Your task to perform on an android device: Open Chrome and go to settings Image 0: 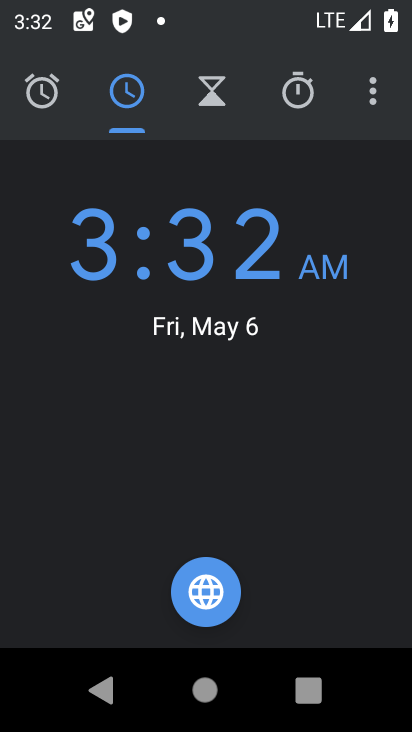
Step 0: press home button
Your task to perform on an android device: Open Chrome and go to settings Image 1: 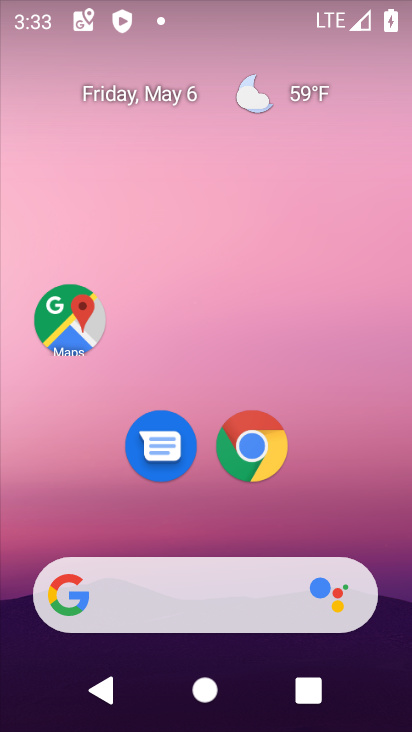
Step 1: click (266, 445)
Your task to perform on an android device: Open Chrome and go to settings Image 2: 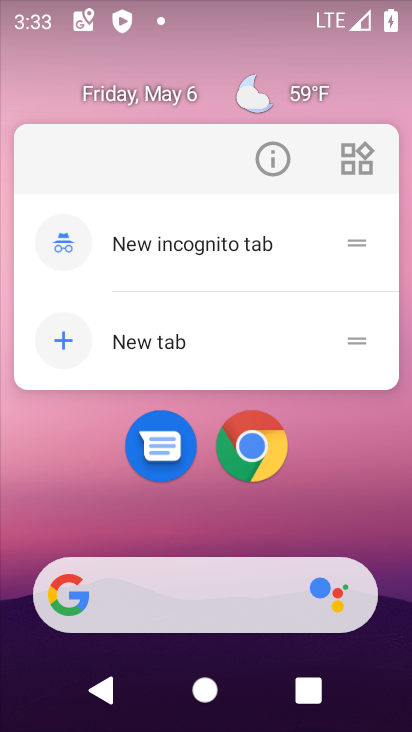
Step 2: click (266, 459)
Your task to perform on an android device: Open Chrome and go to settings Image 3: 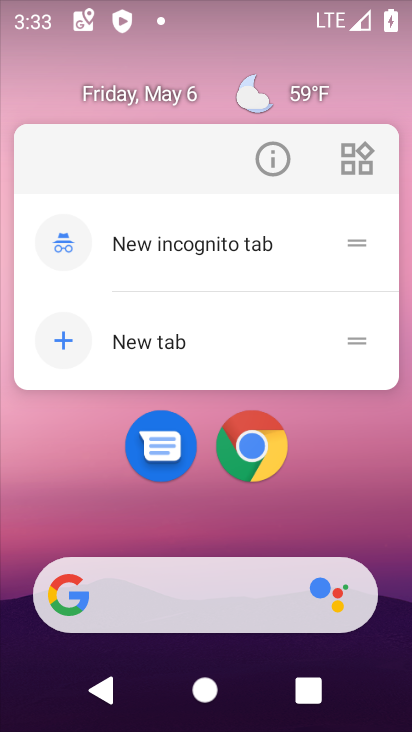
Step 3: click (258, 467)
Your task to perform on an android device: Open Chrome and go to settings Image 4: 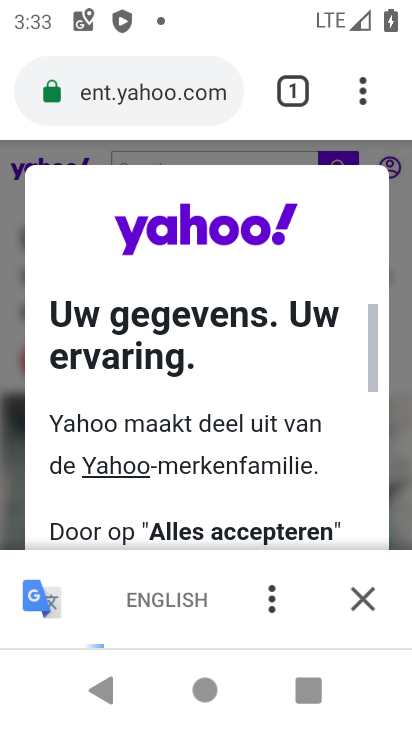
Step 4: task complete